Your task to perform on an android device: turn smart compose on in the gmail app Image 0: 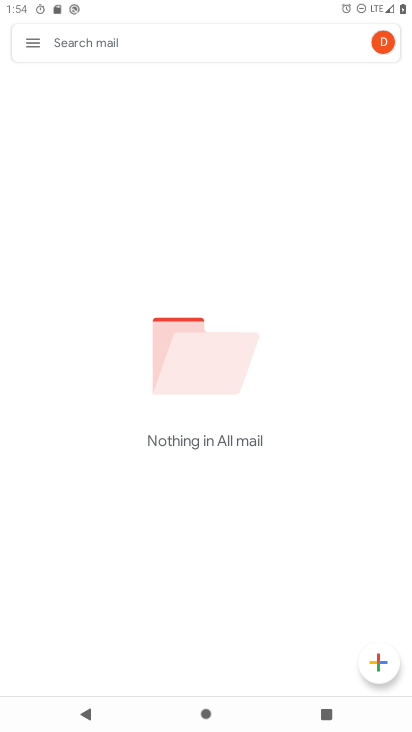
Step 0: click (28, 45)
Your task to perform on an android device: turn smart compose on in the gmail app Image 1: 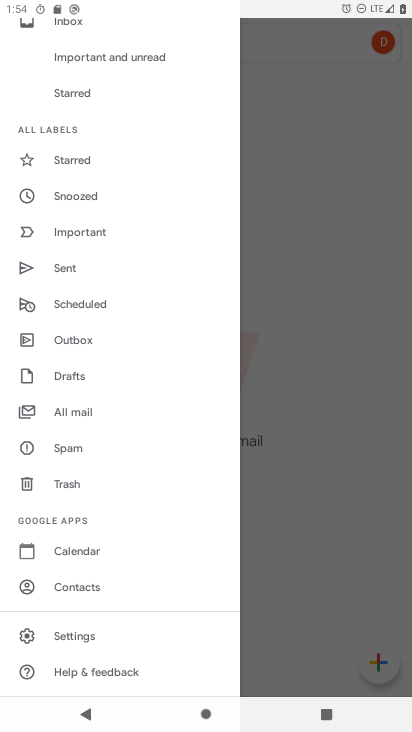
Step 1: click (79, 636)
Your task to perform on an android device: turn smart compose on in the gmail app Image 2: 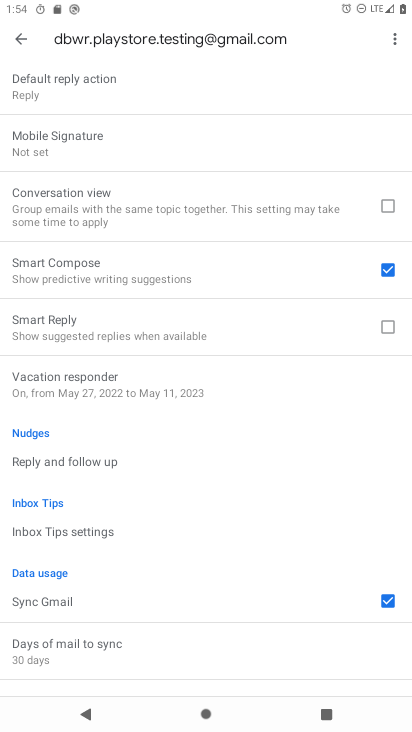
Step 2: task complete